Your task to perform on an android device: Open CNN.com Image 0: 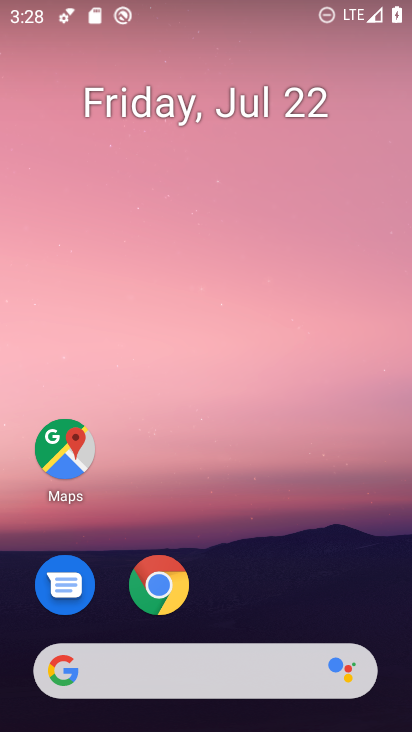
Step 0: click (231, 685)
Your task to perform on an android device: Open CNN.com Image 1: 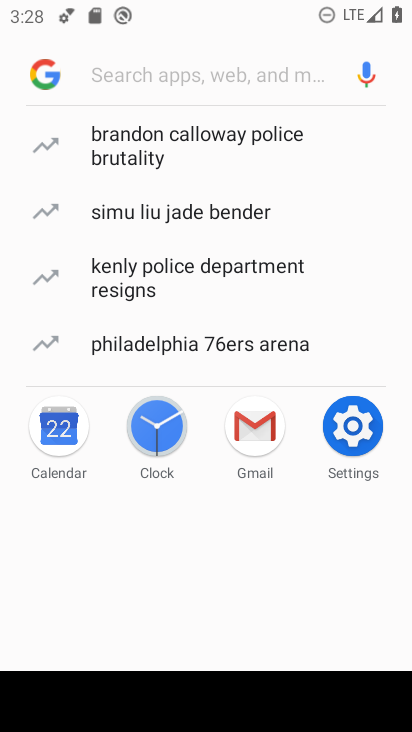
Step 1: type "cnn.com"
Your task to perform on an android device: Open CNN.com Image 2: 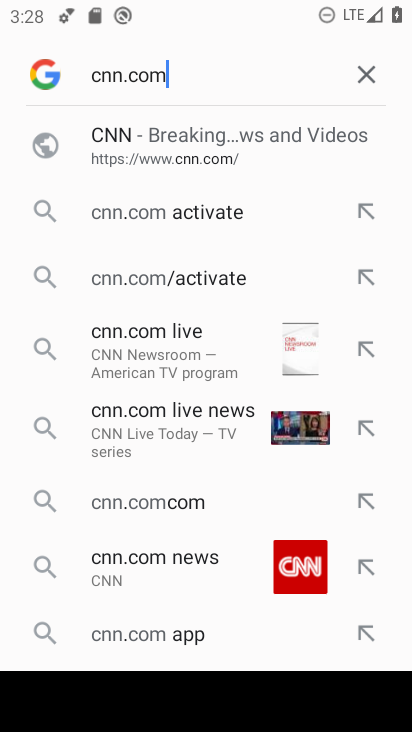
Step 2: click (140, 137)
Your task to perform on an android device: Open CNN.com Image 3: 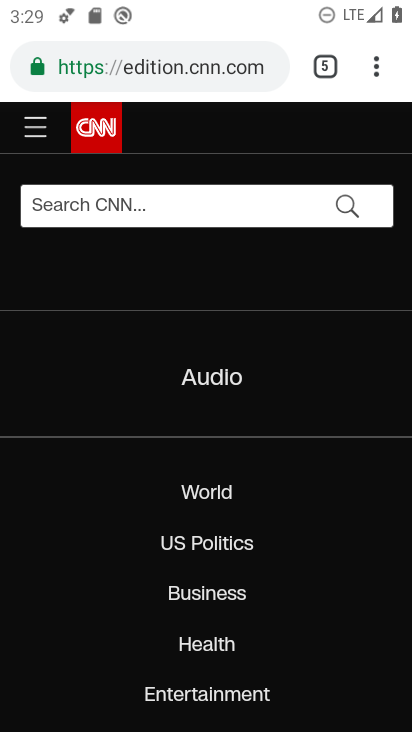
Step 3: click (109, 127)
Your task to perform on an android device: Open CNN.com Image 4: 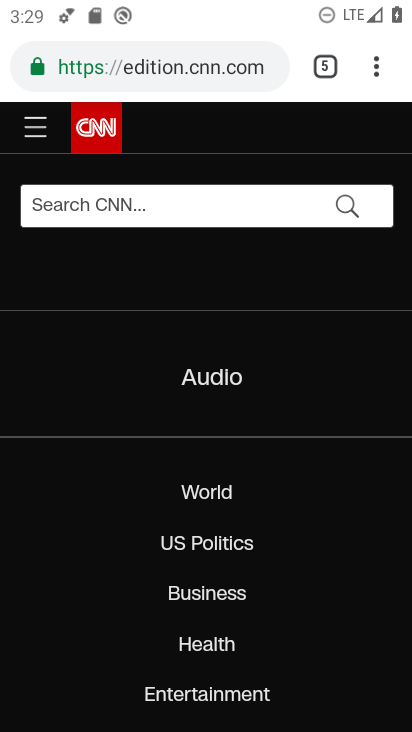
Step 4: task complete